Your task to perform on an android device: delete the emails in spam in the gmail app Image 0: 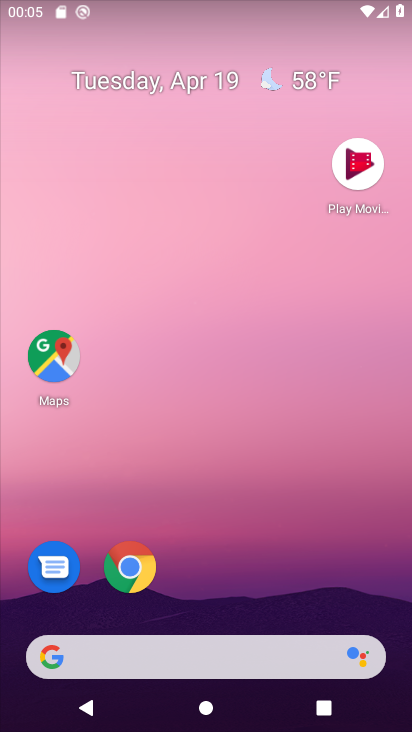
Step 0: drag from (212, 487) to (254, 251)
Your task to perform on an android device: delete the emails in spam in the gmail app Image 1: 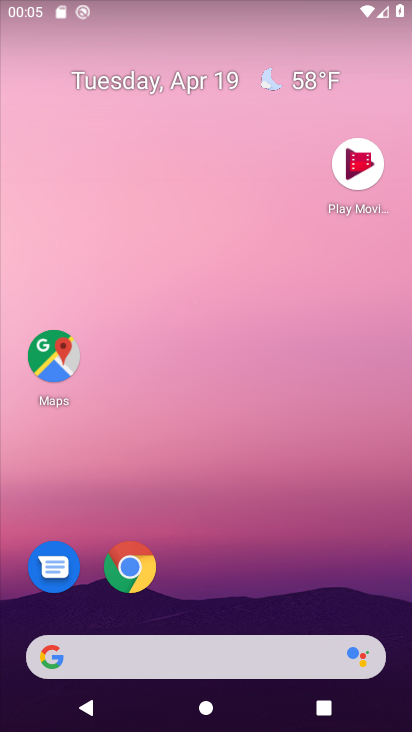
Step 1: drag from (230, 562) to (296, 90)
Your task to perform on an android device: delete the emails in spam in the gmail app Image 2: 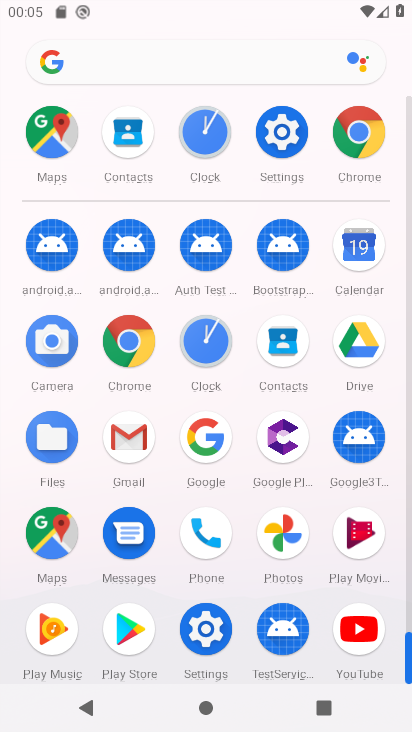
Step 2: click (125, 420)
Your task to perform on an android device: delete the emails in spam in the gmail app Image 3: 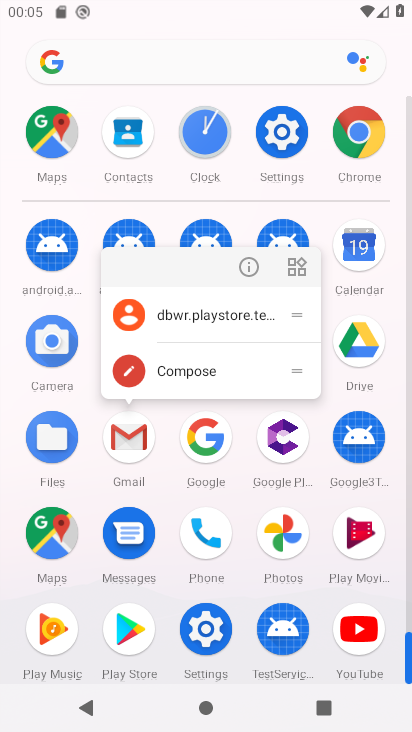
Step 3: click (257, 257)
Your task to perform on an android device: delete the emails in spam in the gmail app Image 4: 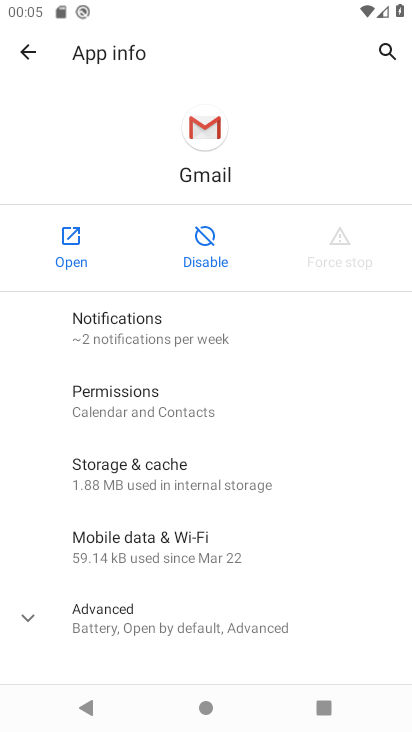
Step 4: click (50, 238)
Your task to perform on an android device: delete the emails in spam in the gmail app Image 5: 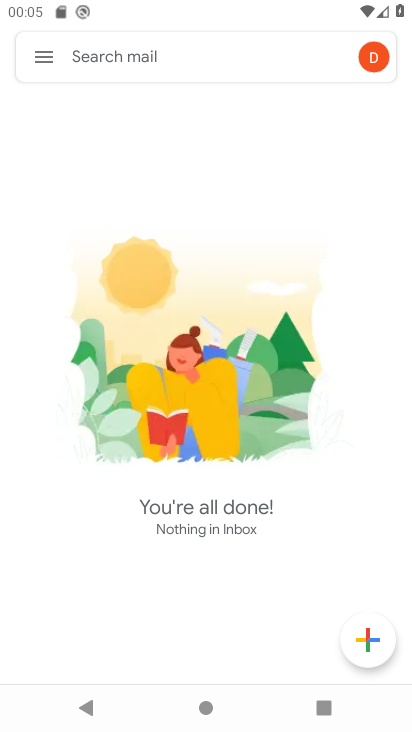
Step 5: task complete